Your task to perform on an android device: Search for "macbook pro" on costco, select the first entry, add it to the cart, then select checkout. Image 0: 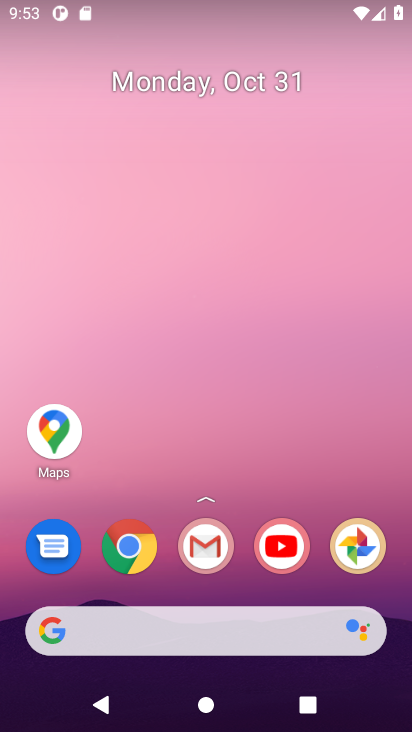
Step 0: click (128, 550)
Your task to perform on an android device: Search for "macbook pro" on costco, select the first entry, add it to the cart, then select checkout. Image 1: 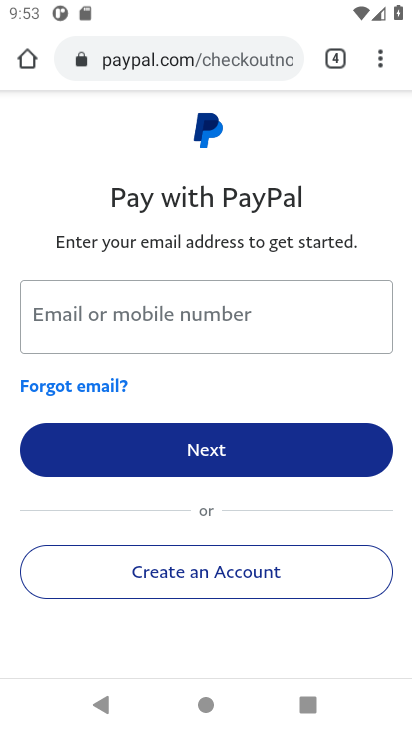
Step 1: click (230, 52)
Your task to perform on an android device: Search for "macbook pro" on costco, select the first entry, add it to the cart, then select checkout. Image 2: 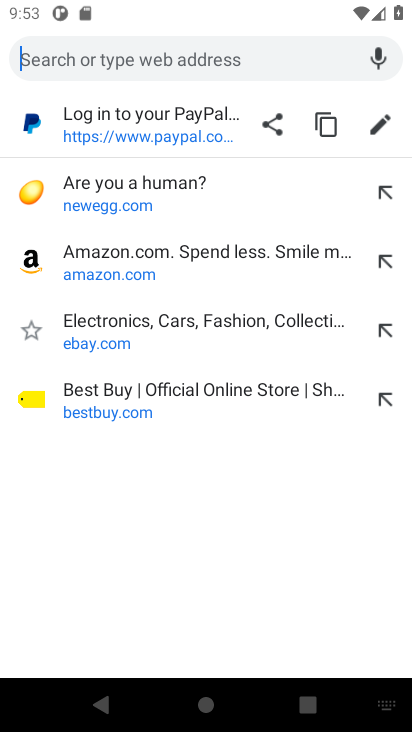
Step 2: type "costco"
Your task to perform on an android device: Search for "macbook pro" on costco, select the first entry, add it to the cart, then select checkout. Image 3: 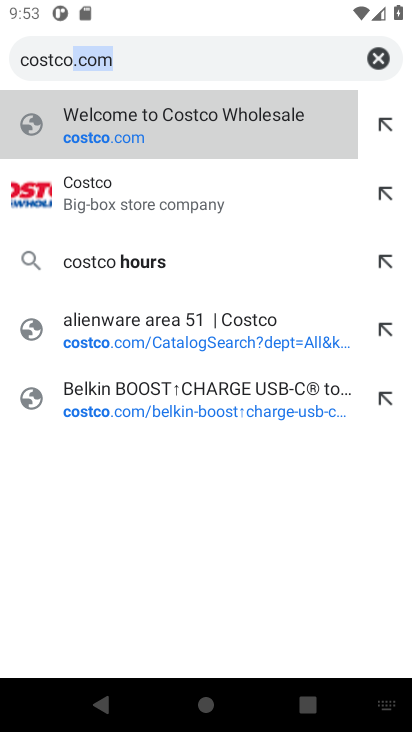
Step 3: click (303, 131)
Your task to perform on an android device: Search for "macbook pro" on costco, select the first entry, add it to the cart, then select checkout. Image 4: 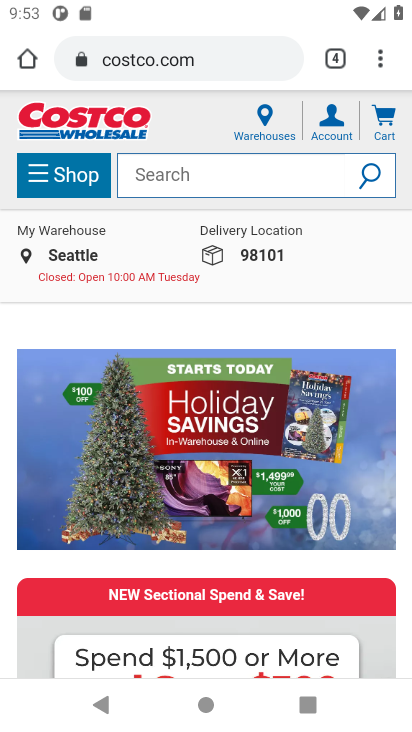
Step 4: click (215, 178)
Your task to perform on an android device: Search for "macbook pro" on costco, select the first entry, add it to the cart, then select checkout. Image 5: 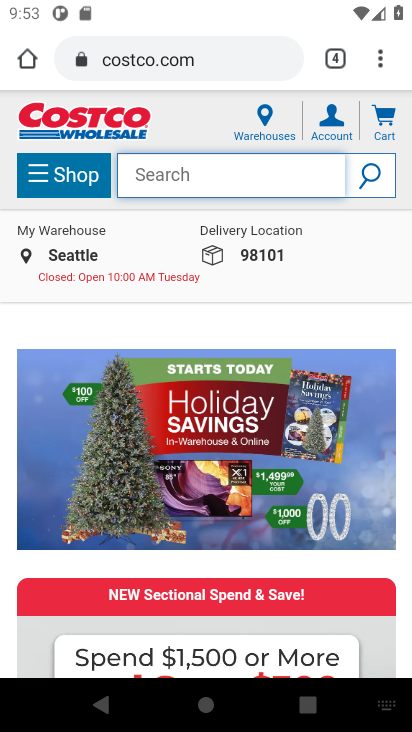
Step 5: type "macbook pro"
Your task to perform on an android device: Search for "macbook pro" on costco, select the first entry, add it to the cart, then select checkout. Image 6: 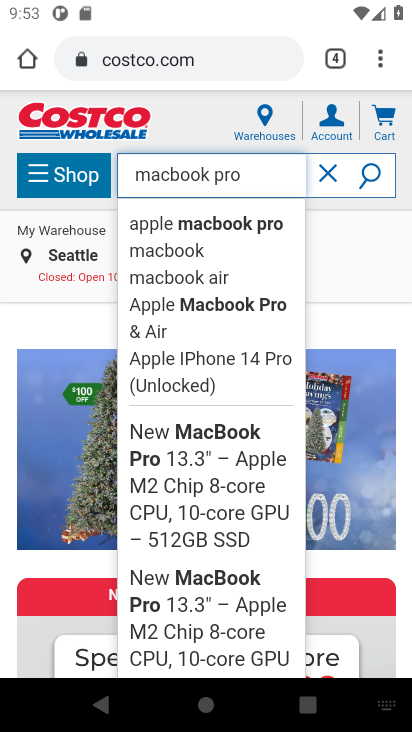
Step 6: click (368, 173)
Your task to perform on an android device: Search for "macbook pro" on costco, select the first entry, add it to the cart, then select checkout. Image 7: 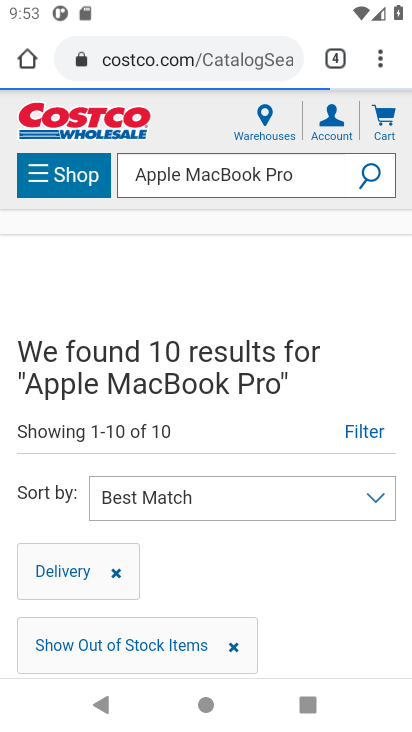
Step 7: drag from (245, 587) to (295, 280)
Your task to perform on an android device: Search for "macbook pro" on costco, select the first entry, add it to the cart, then select checkout. Image 8: 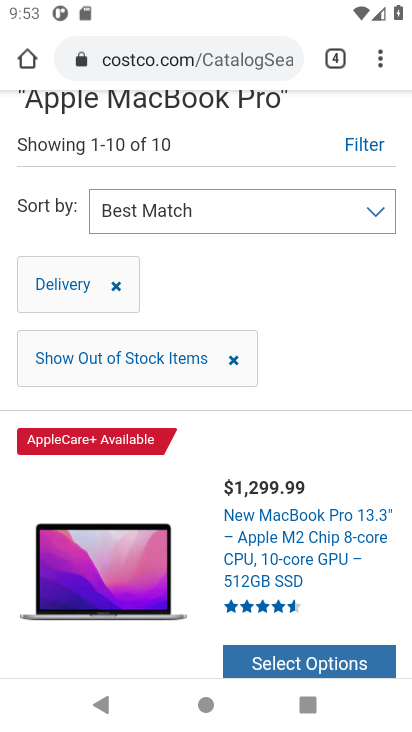
Step 8: drag from (335, 577) to (316, 366)
Your task to perform on an android device: Search for "macbook pro" on costco, select the first entry, add it to the cart, then select checkout. Image 9: 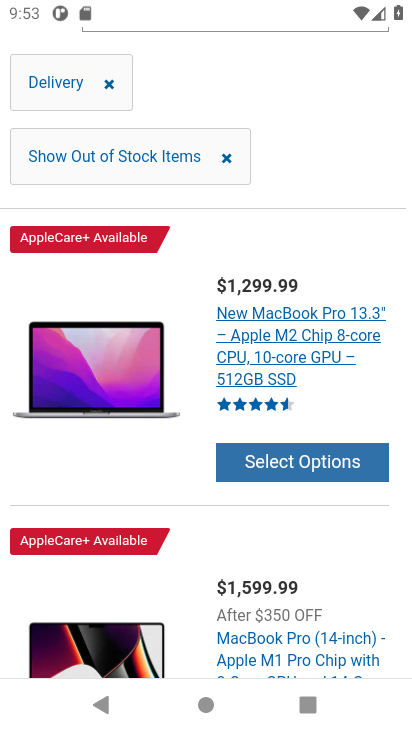
Step 9: click (305, 468)
Your task to perform on an android device: Search for "macbook pro" on costco, select the first entry, add it to the cart, then select checkout. Image 10: 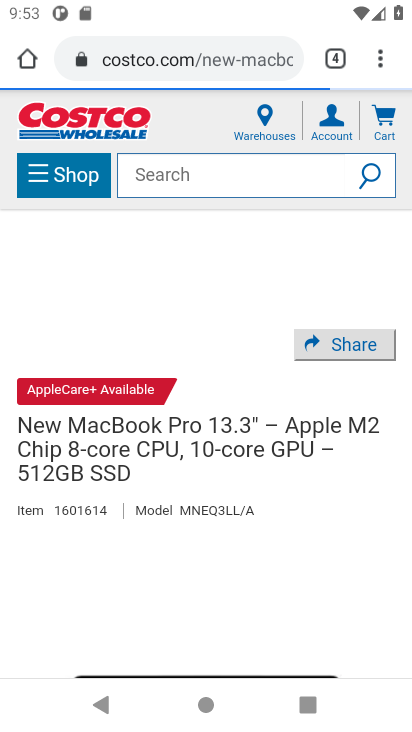
Step 10: drag from (311, 531) to (337, 163)
Your task to perform on an android device: Search for "macbook pro" on costco, select the first entry, add it to the cart, then select checkout. Image 11: 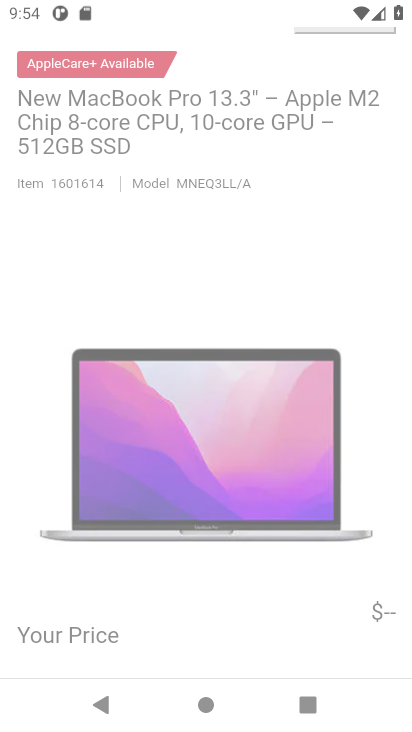
Step 11: drag from (286, 652) to (286, 339)
Your task to perform on an android device: Search for "macbook pro" on costco, select the first entry, add it to the cart, then select checkout. Image 12: 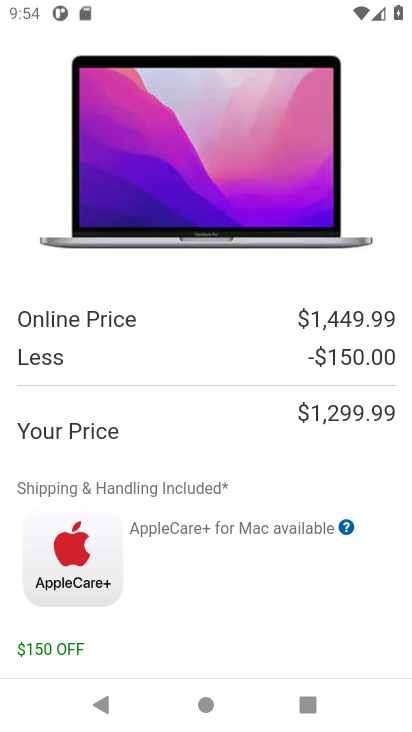
Step 12: drag from (299, 488) to (329, 186)
Your task to perform on an android device: Search for "macbook pro" on costco, select the first entry, add it to the cart, then select checkout. Image 13: 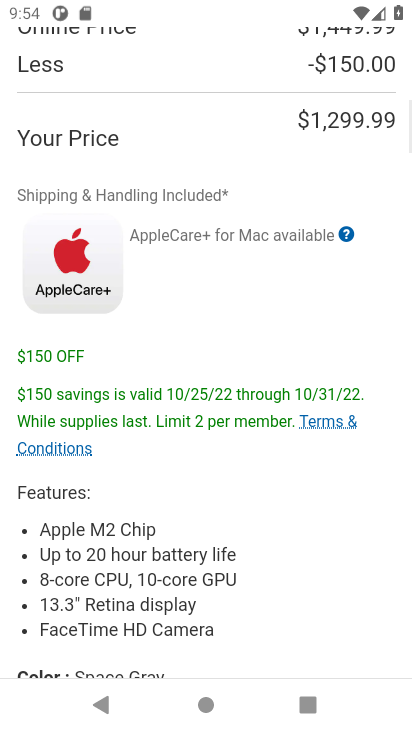
Step 13: drag from (300, 487) to (338, 170)
Your task to perform on an android device: Search for "macbook pro" on costco, select the first entry, add it to the cart, then select checkout. Image 14: 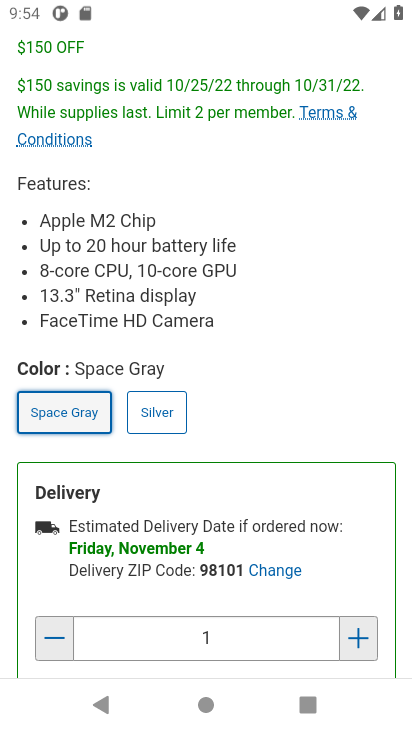
Step 14: drag from (276, 489) to (338, 181)
Your task to perform on an android device: Search for "macbook pro" on costco, select the first entry, add it to the cart, then select checkout. Image 15: 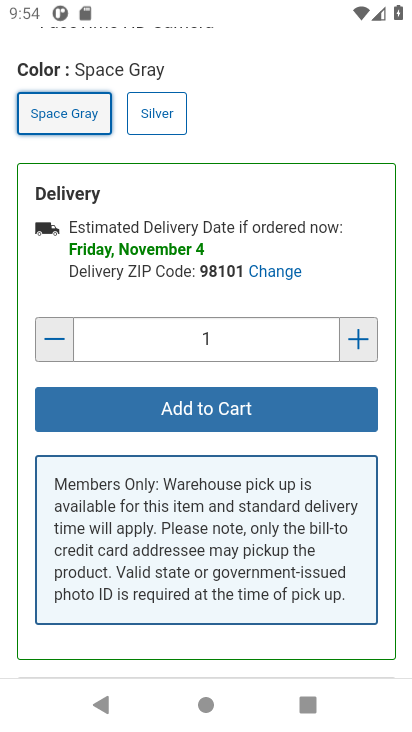
Step 15: click (176, 405)
Your task to perform on an android device: Search for "macbook pro" on costco, select the first entry, add it to the cart, then select checkout. Image 16: 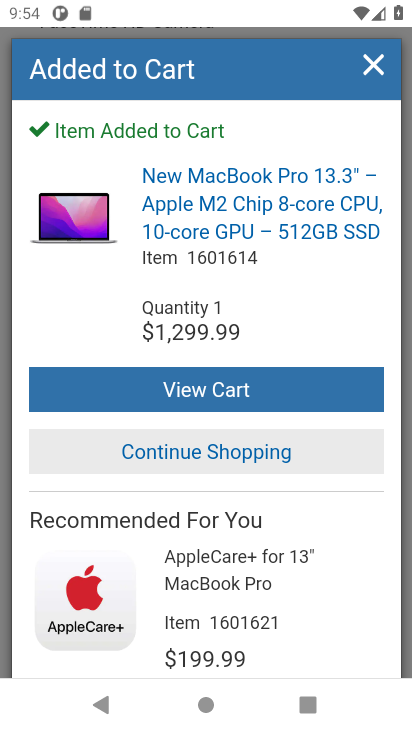
Step 16: click (180, 398)
Your task to perform on an android device: Search for "macbook pro" on costco, select the first entry, add it to the cart, then select checkout. Image 17: 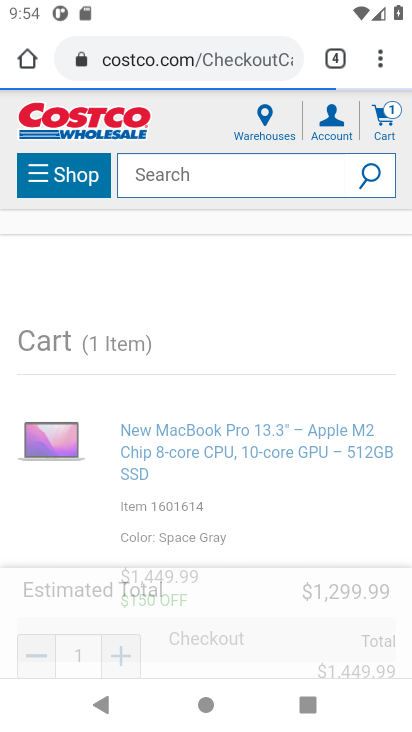
Step 17: click (259, 637)
Your task to perform on an android device: Search for "macbook pro" on costco, select the first entry, add it to the cart, then select checkout. Image 18: 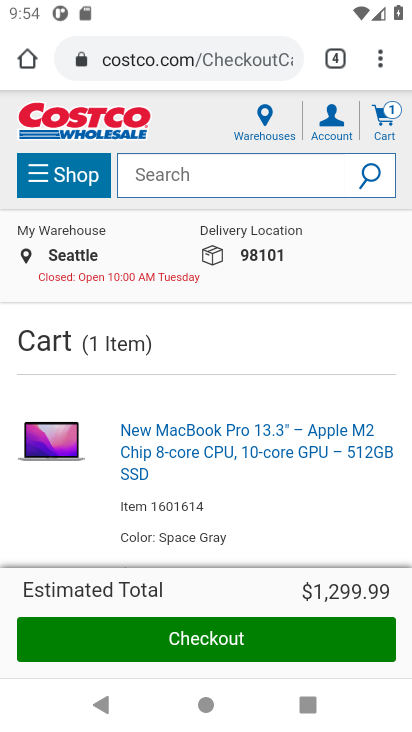
Step 18: click (238, 650)
Your task to perform on an android device: Search for "macbook pro" on costco, select the first entry, add it to the cart, then select checkout. Image 19: 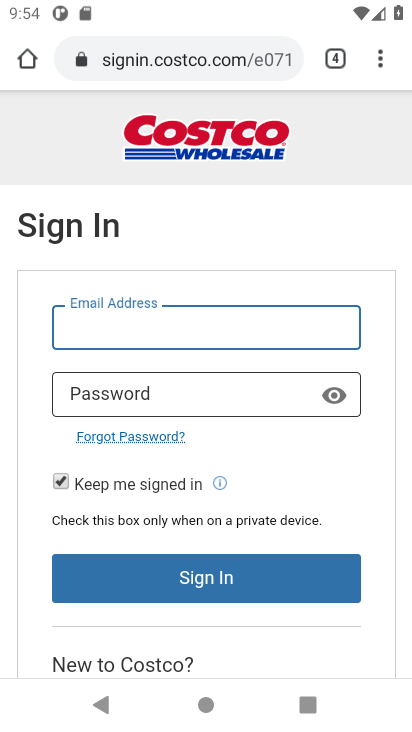
Step 19: task complete